Your task to perform on an android device: Open the phone app and click the voicemail tab. Image 0: 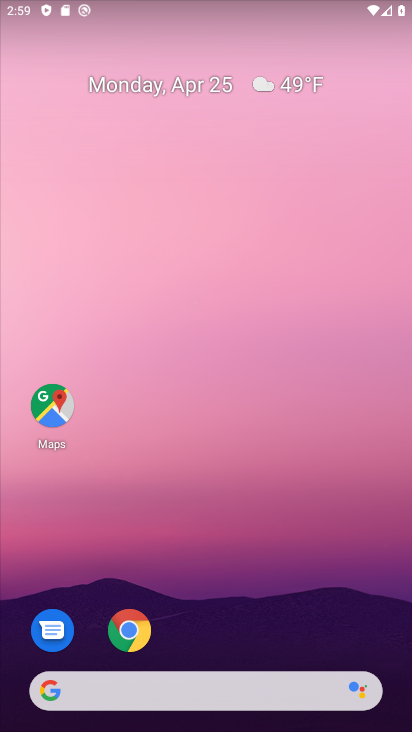
Step 0: drag from (309, 591) to (245, 0)
Your task to perform on an android device: Open the phone app and click the voicemail tab. Image 1: 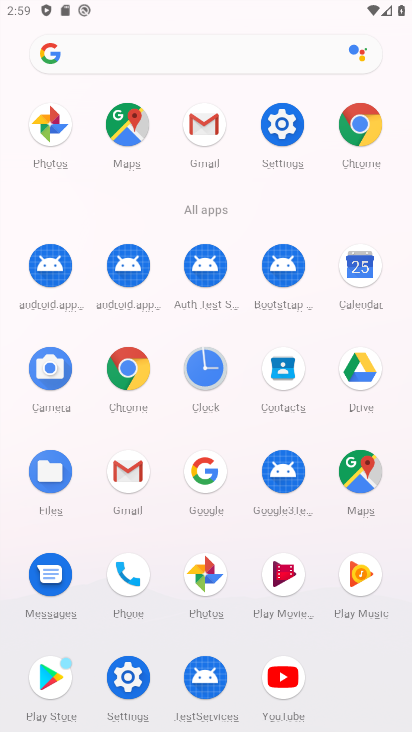
Step 1: click (133, 578)
Your task to perform on an android device: Open the phone app and click the voicemail tab. Image 2: 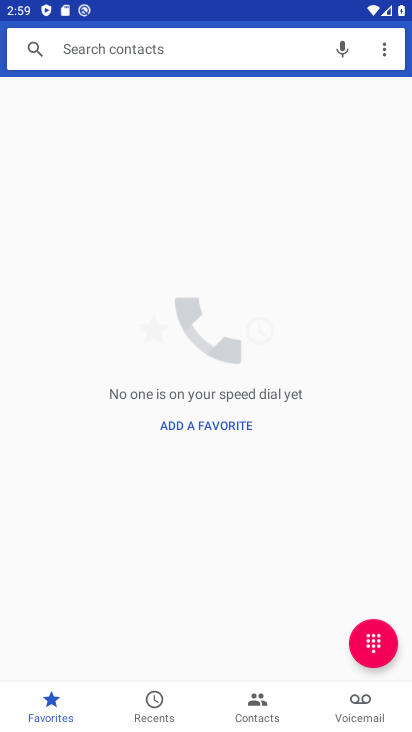
Step 2: click (358, 708)
Your task to perform on an android device: Open the phone app and click the voicemail tab. Image 3: 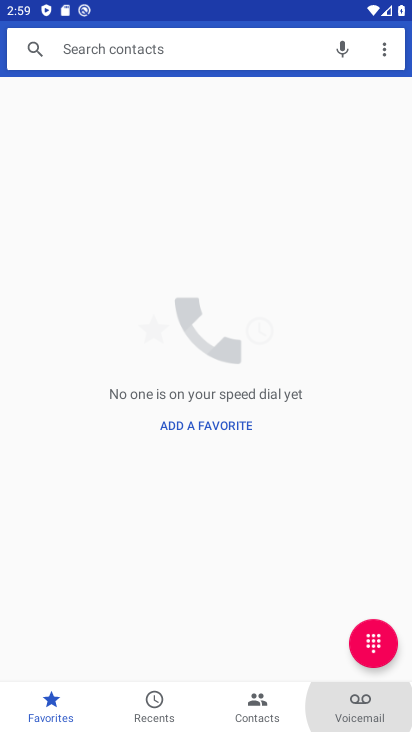
Step 3: click (358, 706)
Your task to perform on an android device: Open the phone app and click the voicemail tab. Image 4: 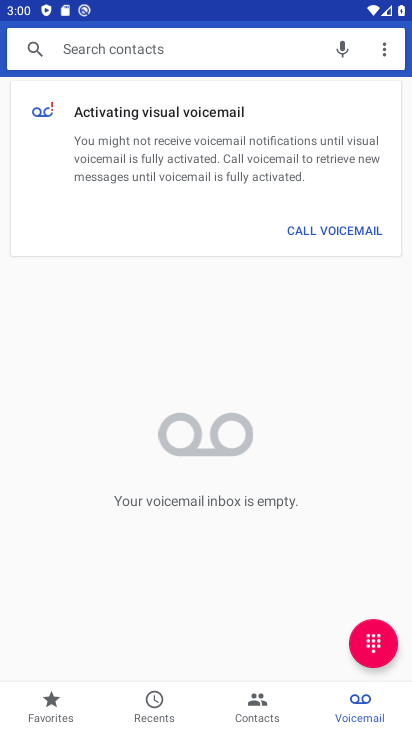
Step 4: task complete